Your task to perform on an android device: Search for "jbl flip 4" on walmart, select the first entry, and add it to the cart. Image 0: 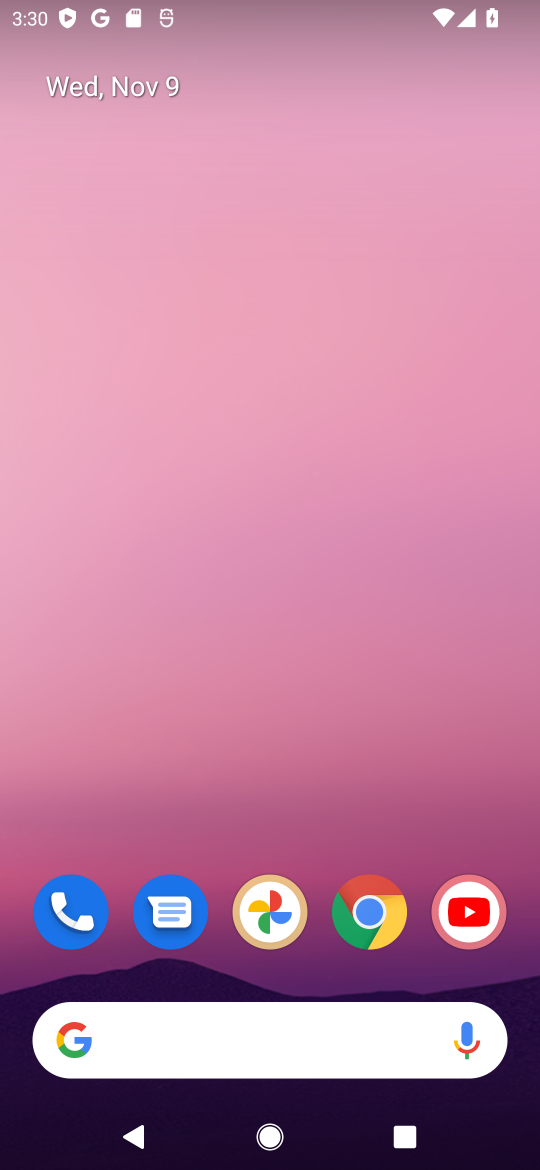
Step 0: click (373, 913)
Your task to perform on an android device: Search for "jbl flip 4" on walmart, select the first entry, and add it to the cart. Image 1: 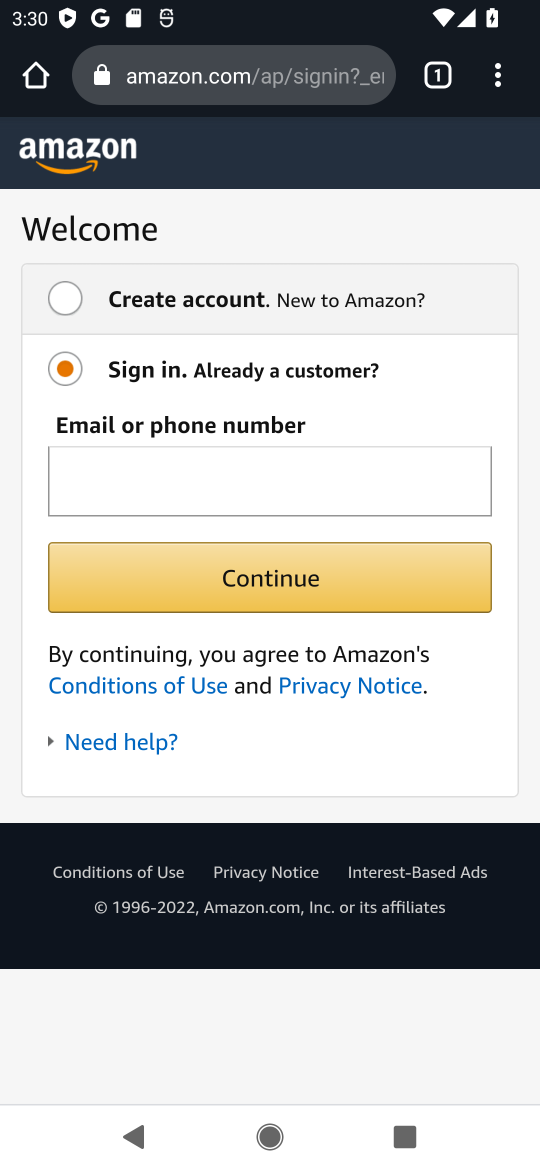
Step 1: click (284, 72)
Your task to perform on an android device: Search for "jbl flip 4" on walmart, select the first entry, and add it to the cart. Image 2: 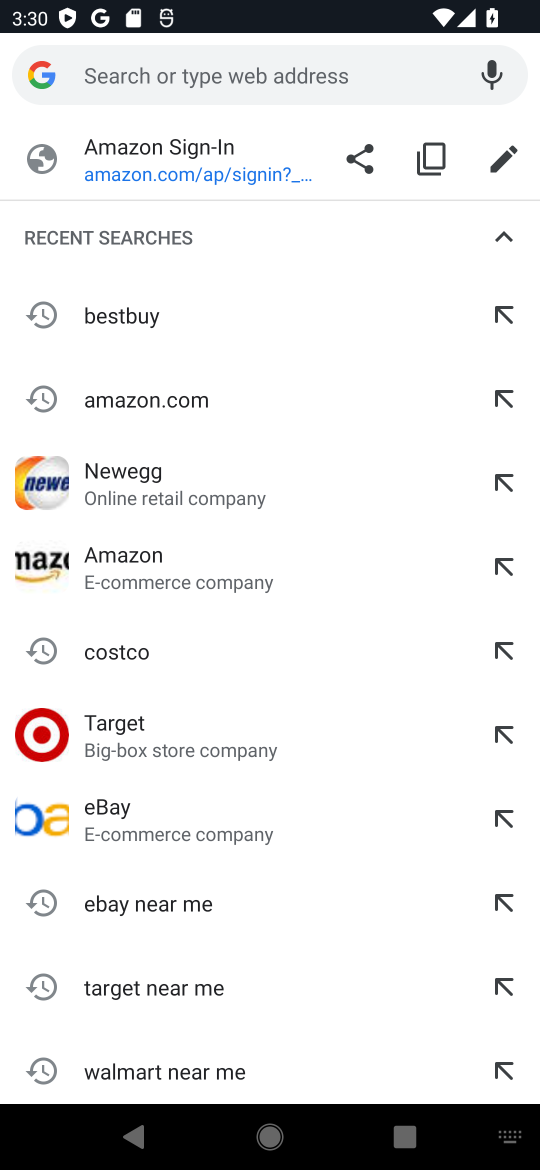
Step 2: type "walmart"
Your task to perform on an android device: Search for "jbl flip 4" on walmart, select the first entry, and add it to the cart. Image 3: 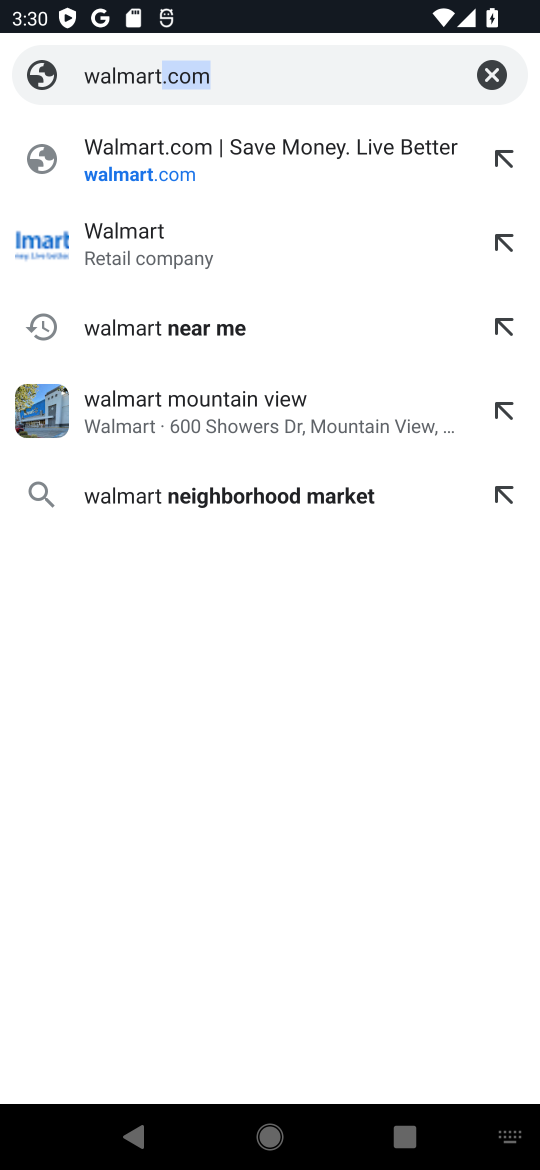
Step 3: click (115, 242)
Your task to perform on an android device: Search for "jbl flip 4" on walmart, select the first entry, and add it to the cart. Image 4: 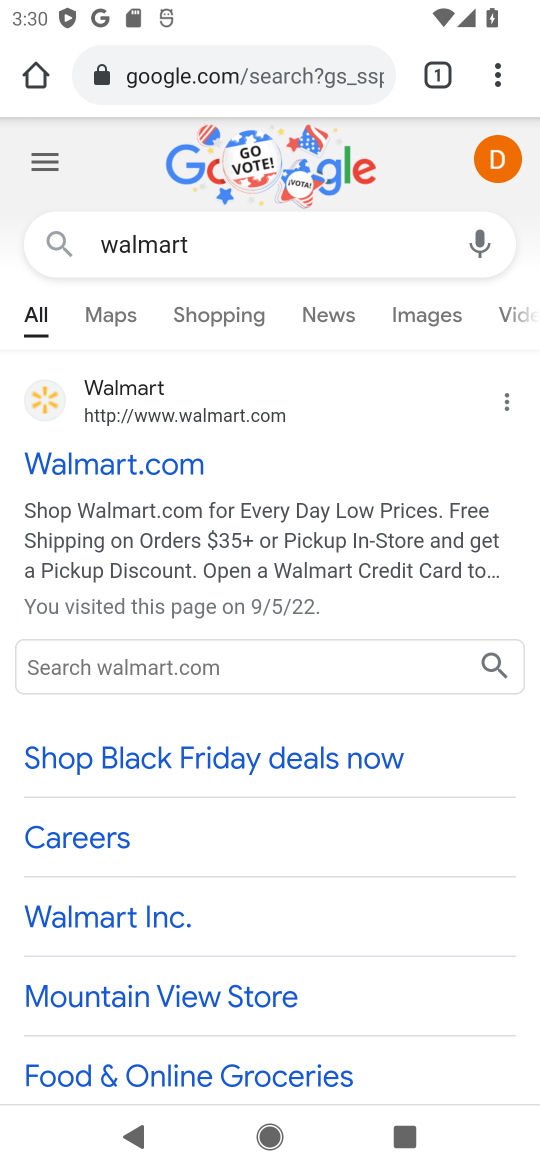
Step 4: click (152, 473)
Your task to perform on an android device: Search for "jbl flip 4" on walmart, select the first entry, and add it to the cart. Image 5: 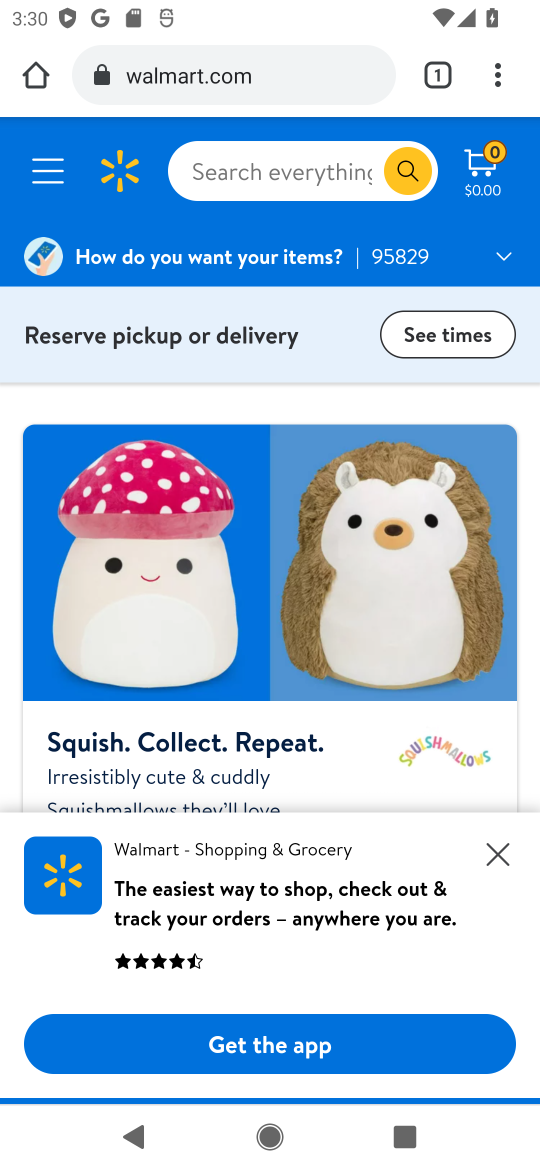
Step 5: click (254, 191)
Your task to perform on an android device: Search for "jbl flip 4" on walmart, select the first entry, and add it to the cart. Image 6: 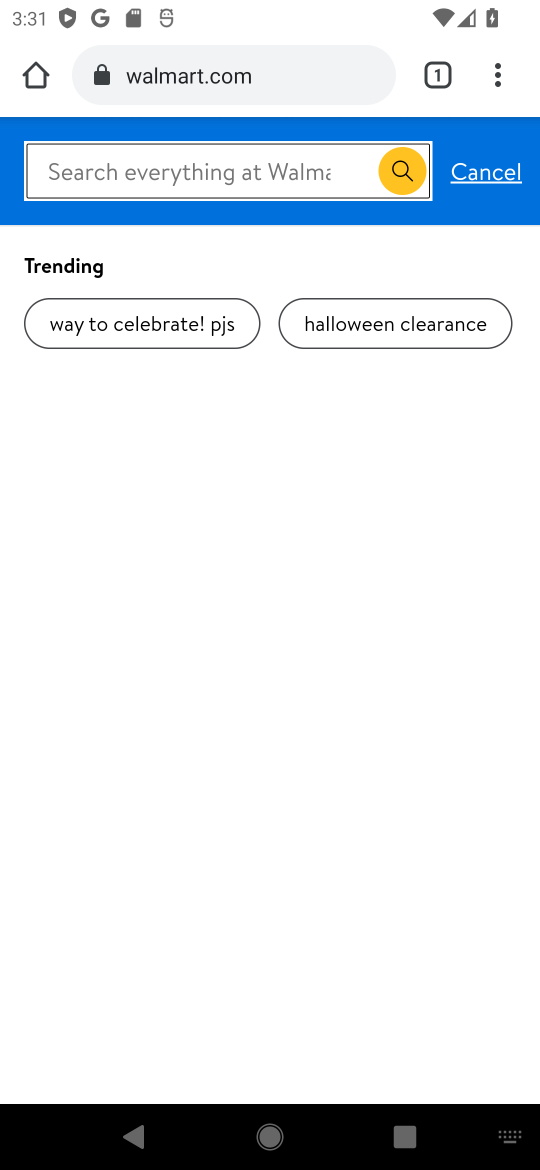
Step 6: type "jbl flip 4"
Your task to perform on an android device: Search for "jbl flip 4" on walmart, select the first entry, and add it to the cart. Image 7: 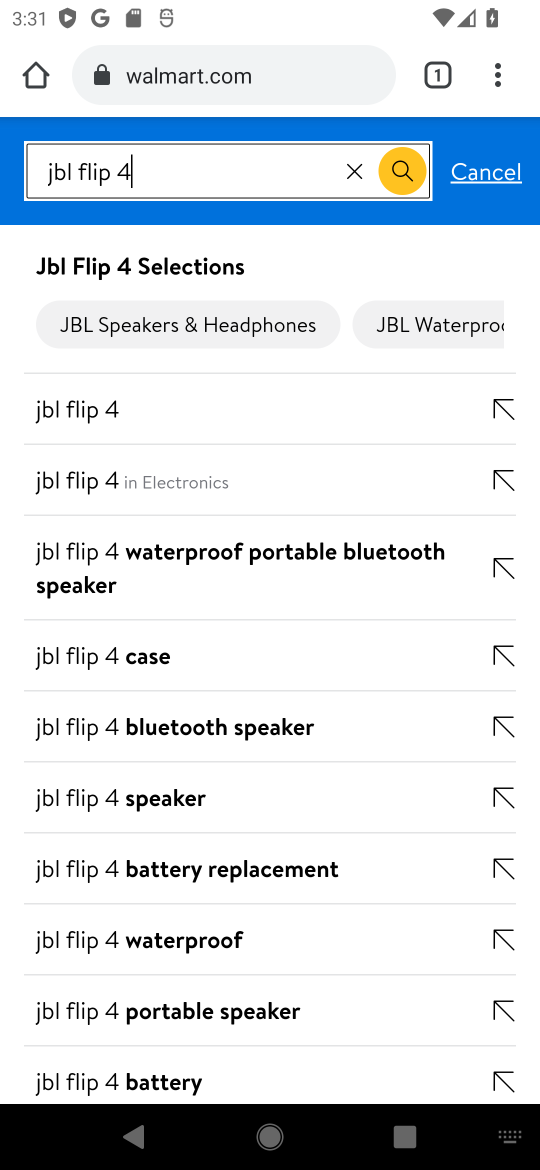
Step 7: click (90, 418)
Your task to perform on an android device: Search for "jbl flip 4" on walmart, select the first entry, and add it to the cart. Image 8: 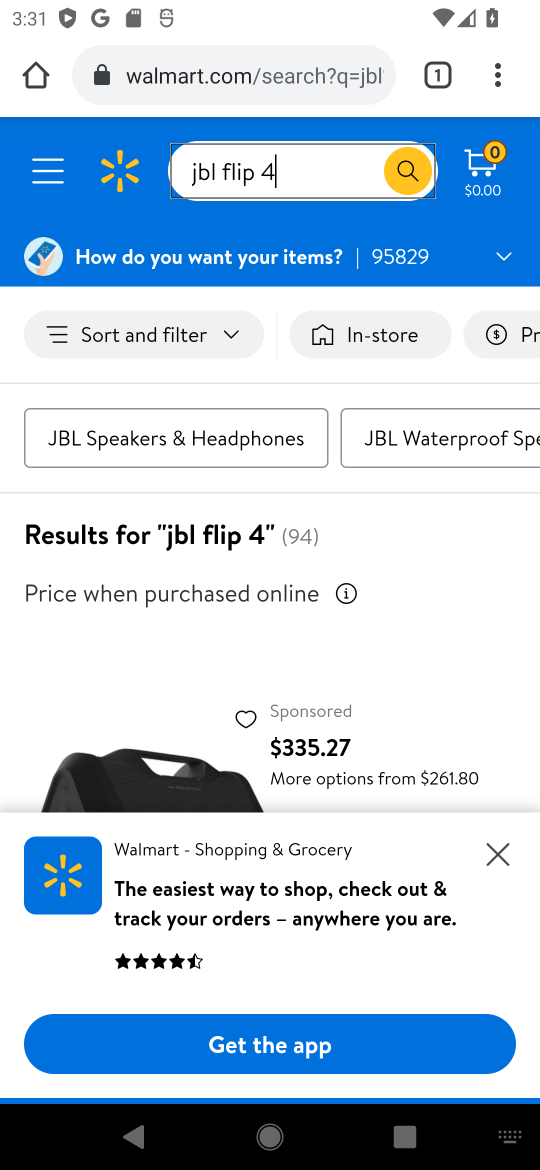
Step 8: click (494, 843)
Your task to perform on an android device: Search for "jbl flip 4" on walmart, select the first entry, and add it to the cart. Image 9: 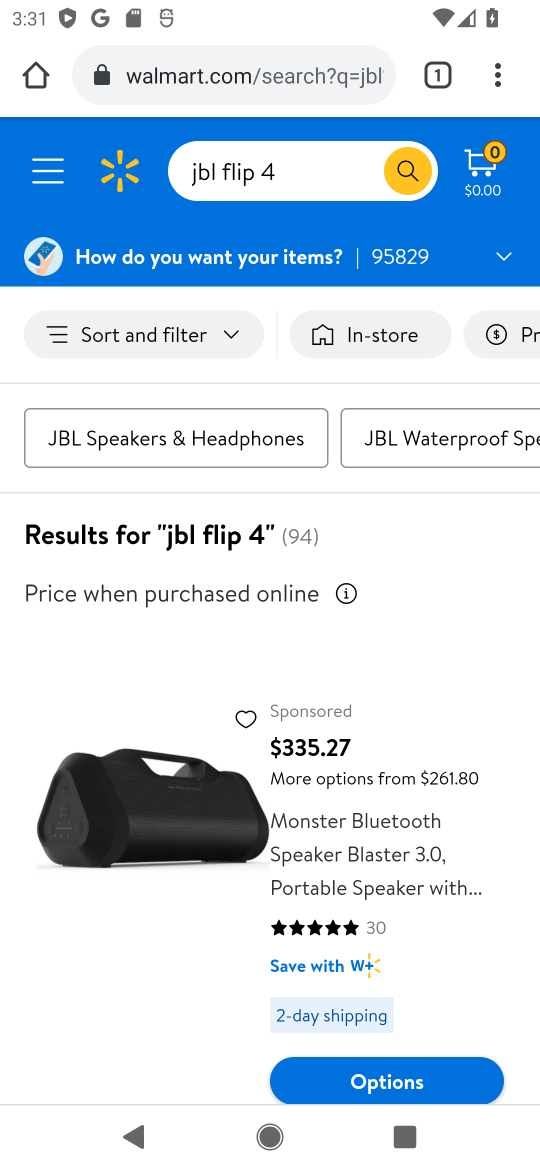
Step 9: click (322, 749)
Your task to perform on an android device: Search for "jbl flip 4" on walmart, select the first entry, and add it to the cart. Image 10: 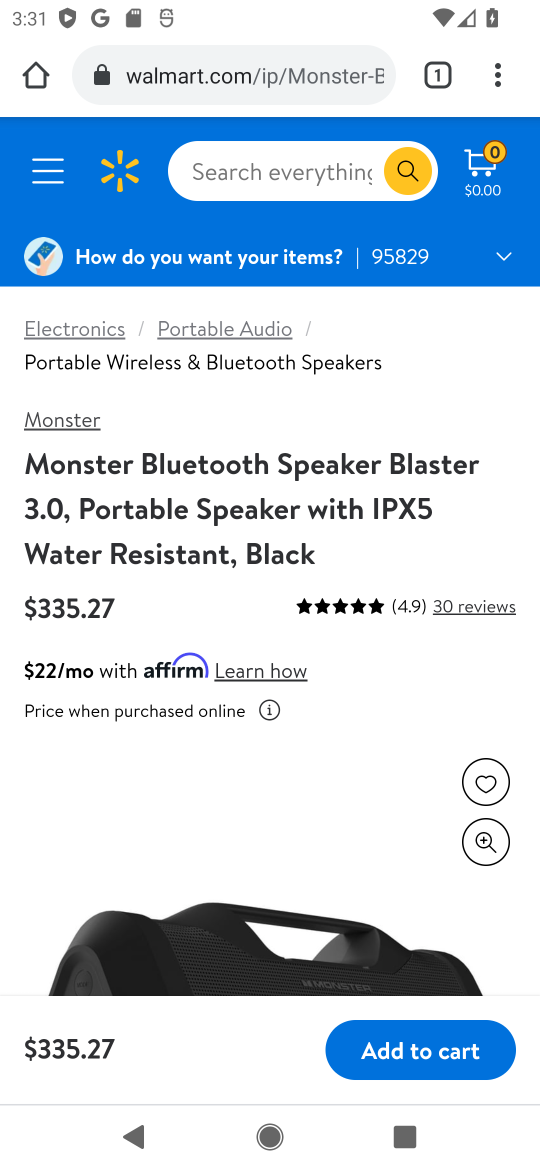
Step 10: click (431, 1049)
Your task to perform on an android device: Search for "jbl flip 4" on walmart, select the first entry, and add it to the cart. Image 11: 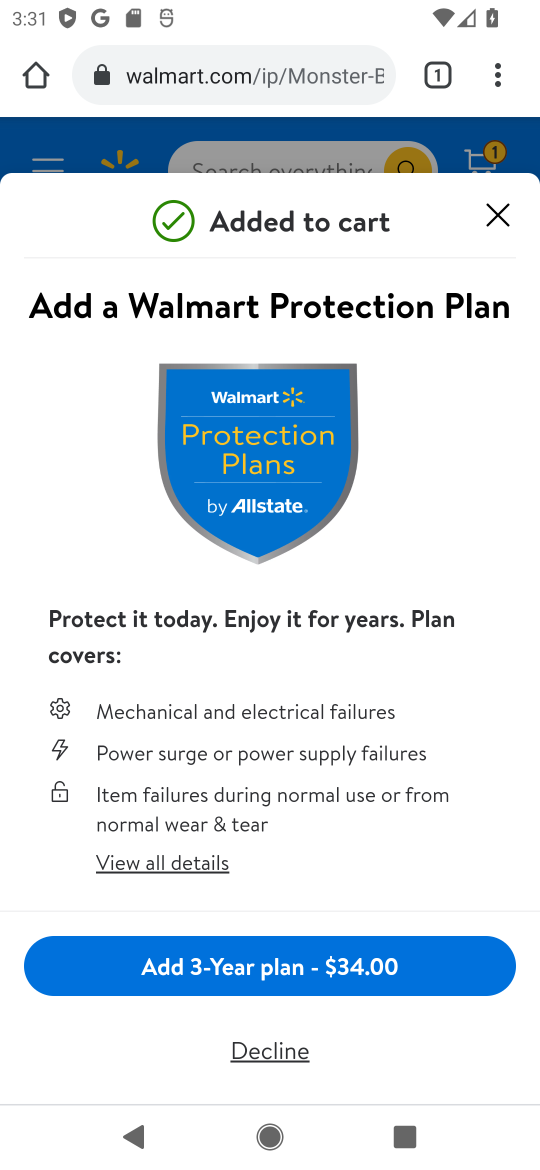
Step 11: click (280, 1052)
Your task to perform on an android device: Search for "jbl flip 4" on walmart, select the first entry, and add it to the cart. Image 12: 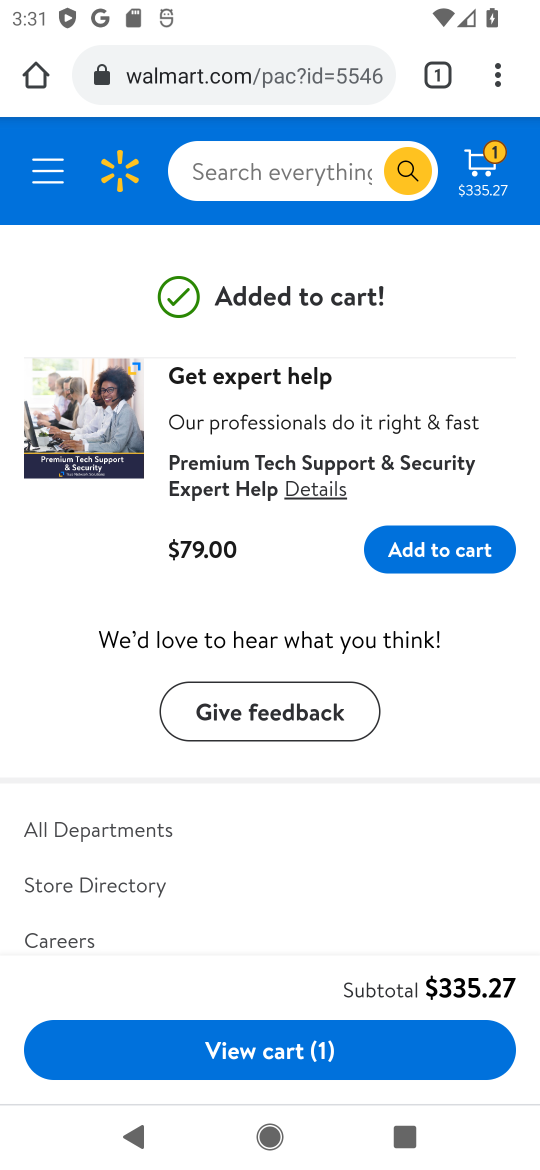
Step 12: task complete